Your task to perform on an android device: manage bookmarks in the chrome app Image 0: 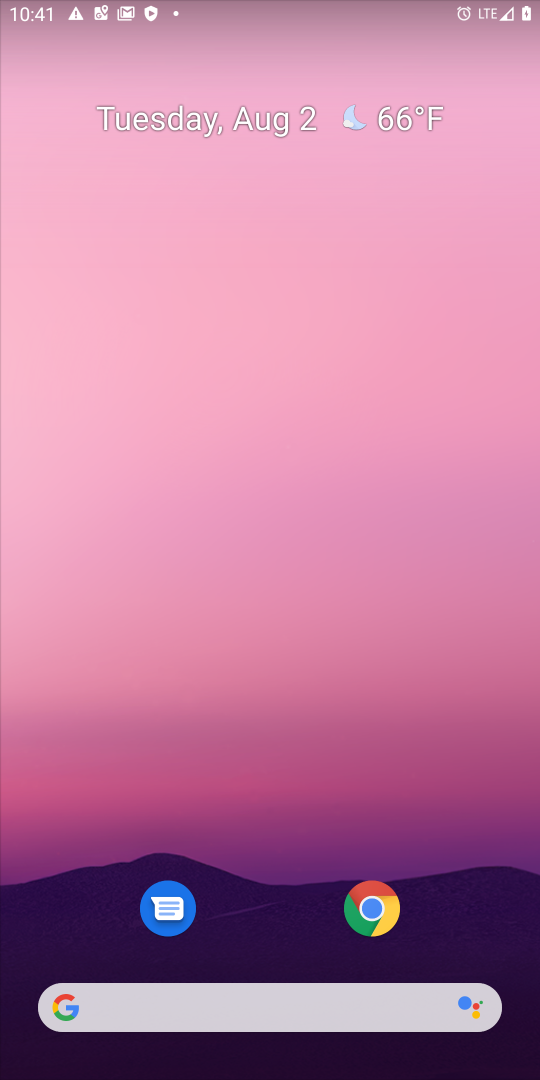
Step 0: press home button
Your task to perform on an android device: manage bookmarks in the chrome app Image 1: 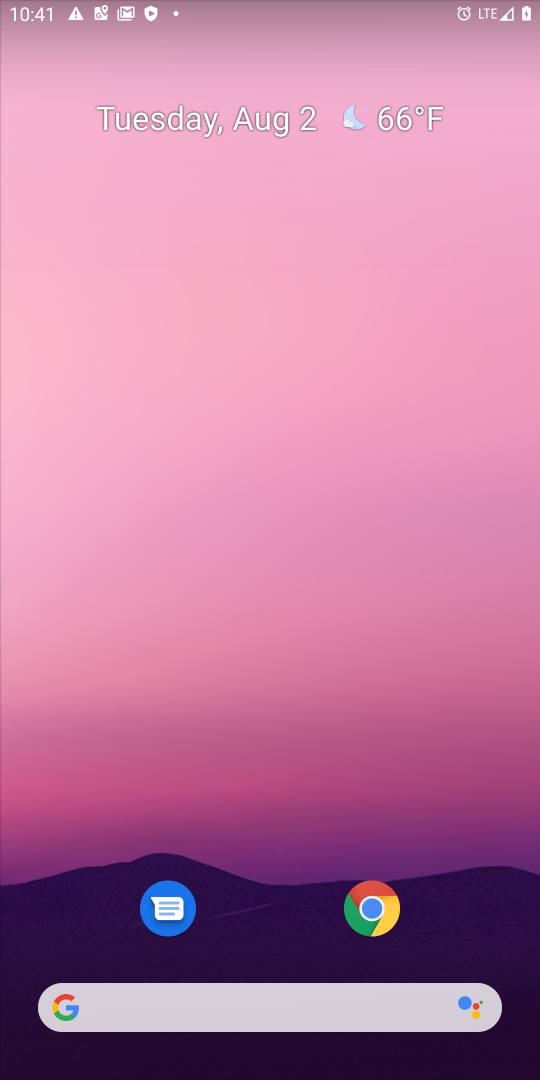
Step 1: drag from (381, 768) to (371, 121)
Your task to perform on an android device: manage bookmarks in the chrome app Image 2: 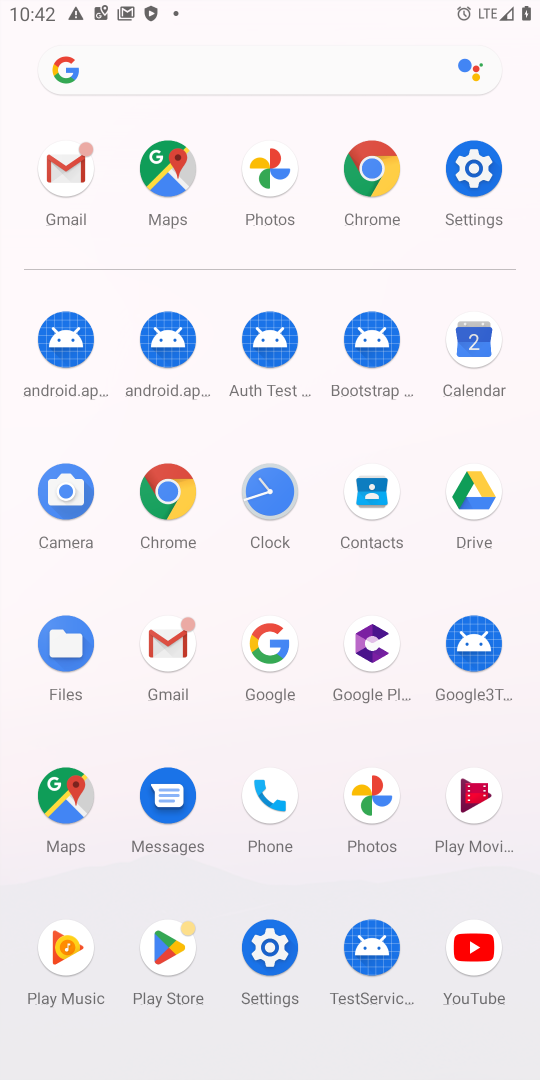
Step 2: click (176, 506)
Your task to perform on an android device: manage bookmarks in the chrome app Image 3: 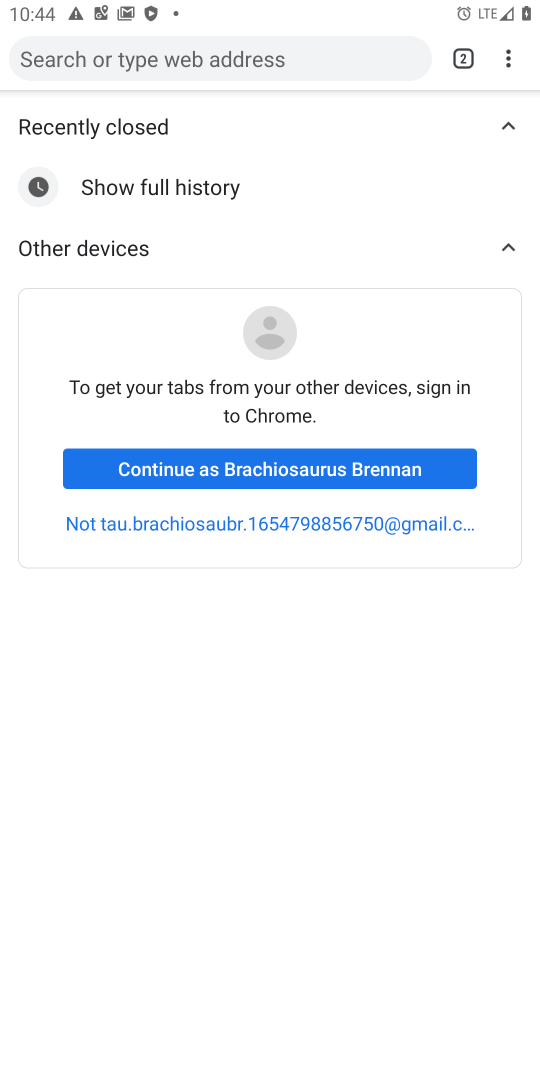
Step 3: click (501, 64)
Your task to perform on an android device: manage bookmarks in the chrome app Image 4: 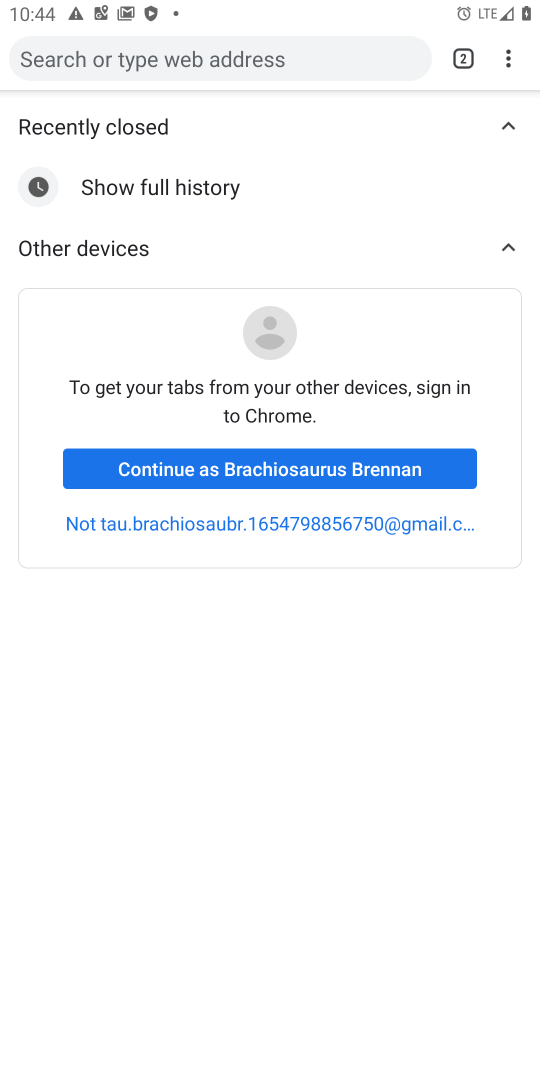
Step 4: click (510, 59)
Your task to perform on an android device: manage bookmarks in the chrome app Image 5: 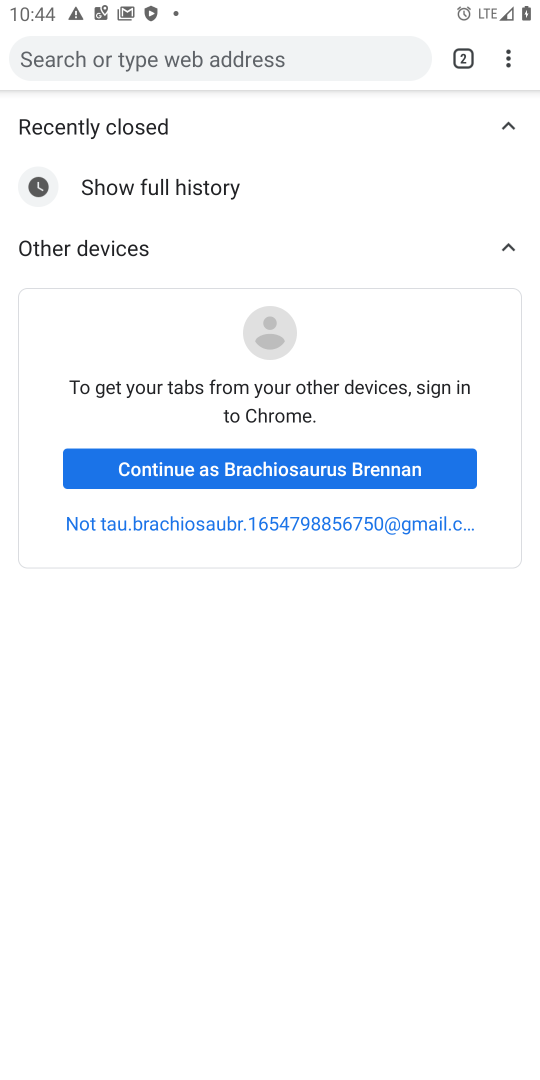
Step 5: click (511, 64)
Your task to perform on an android device: manage bookmarks in the chrome app Image 6: 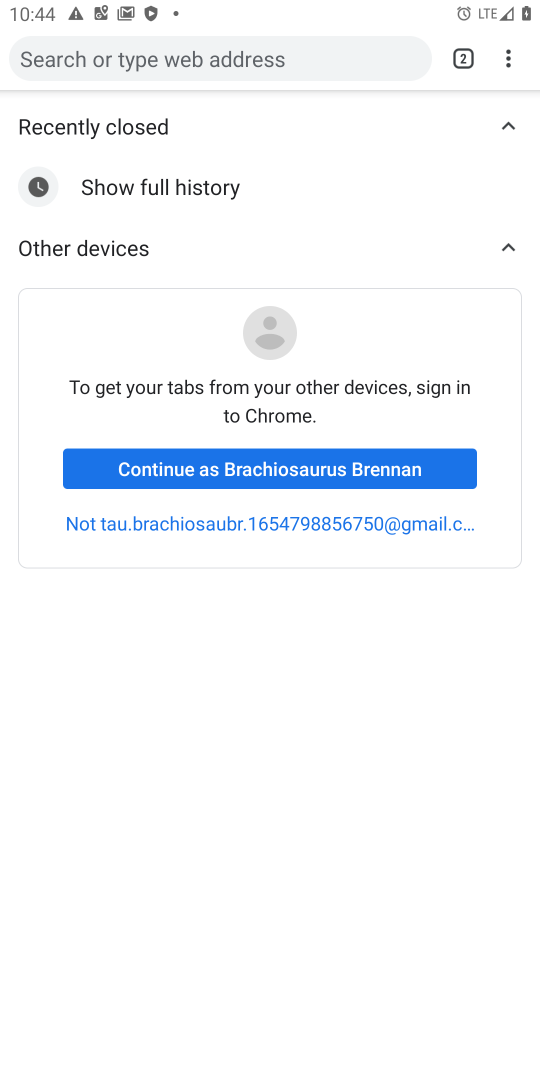
Step 6: click (512, 52)
Your task to perform on an android device: manage bookmarks in the chrome app Image 7: 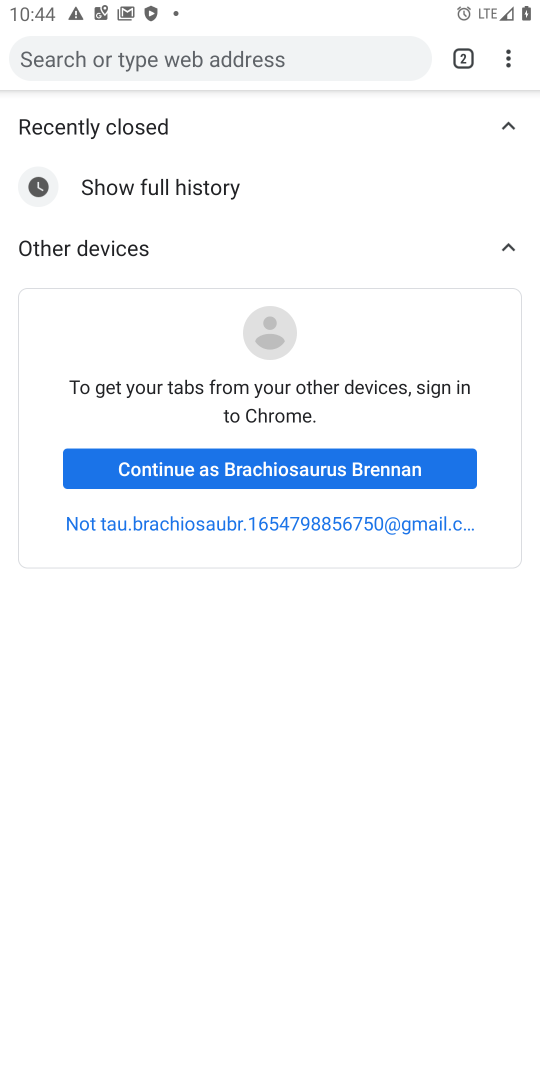
Step 7: click (503, 61)
Your task to perform on an android device: manage bookmarks in the chrome app Image 8: 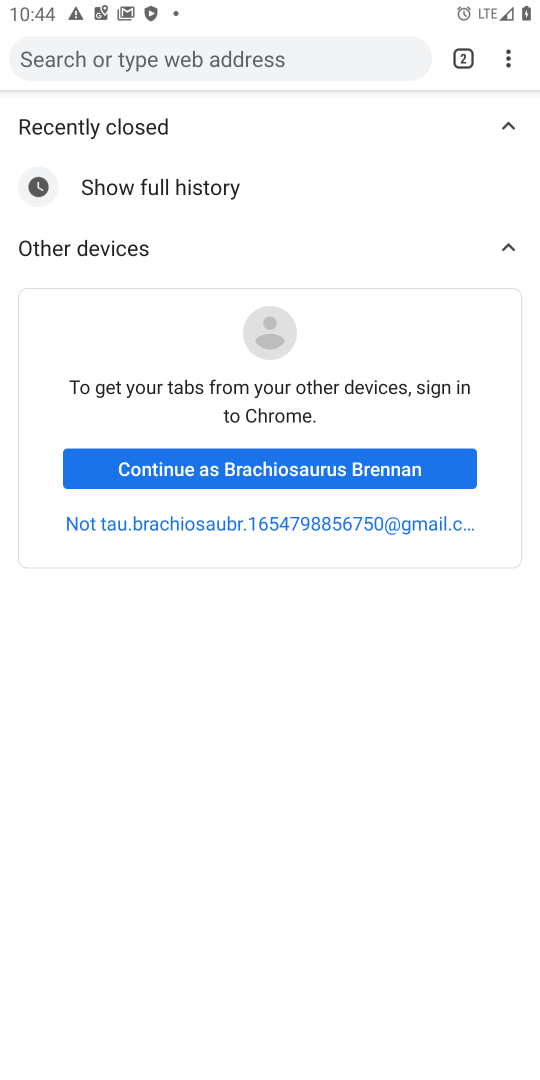
Step 8: click (504, 53)
Your task to perform on an android device: manage bookmarks in the chrome app Image 9: 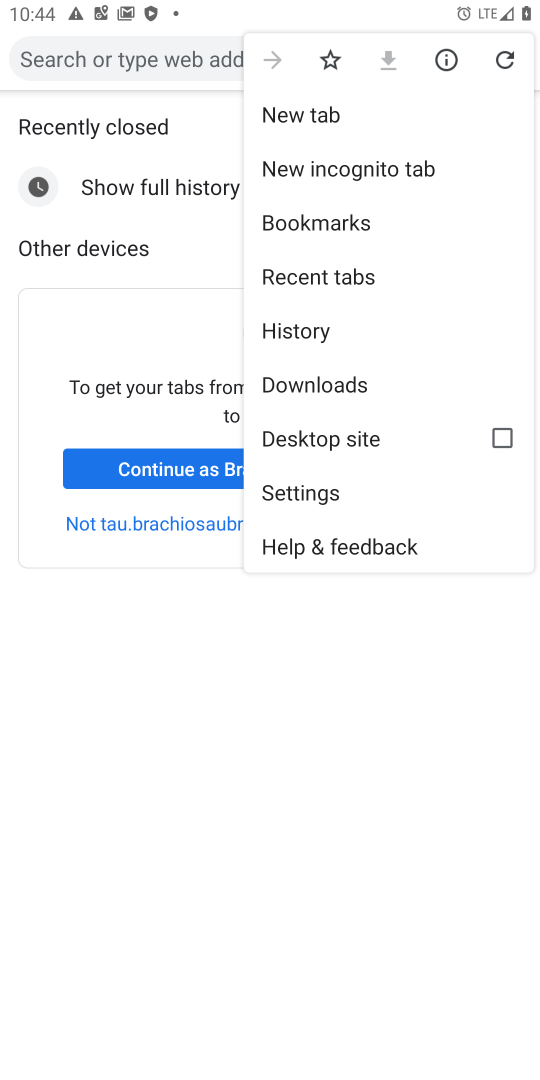
Step 9: click (372, 223)
Your task to perform on an android device: manage bookmarks in the chrome app Image 10: 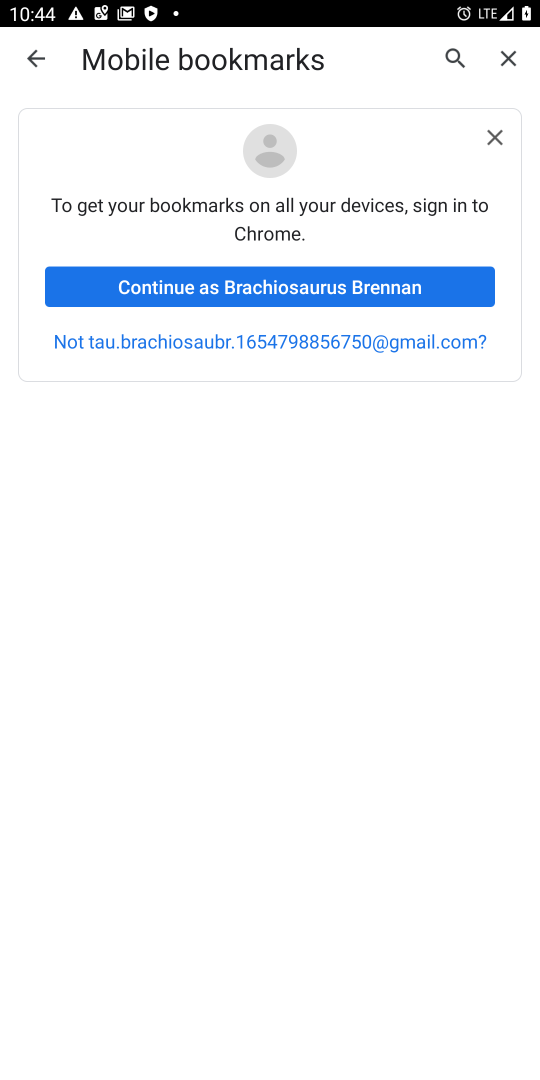
Step 10: click (387, 279)
Your task to perform on an android device: manage bookmarks in the chrome app Image 11: 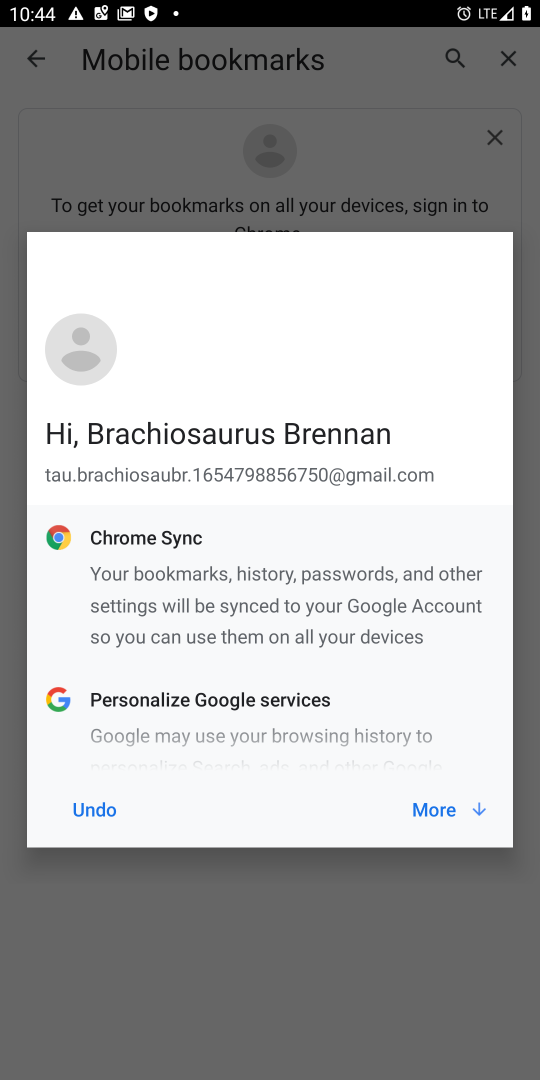
Step 11: click (434, 808)
Your task to perform on an android device: manage bookmarks in the chrome app Image 12: 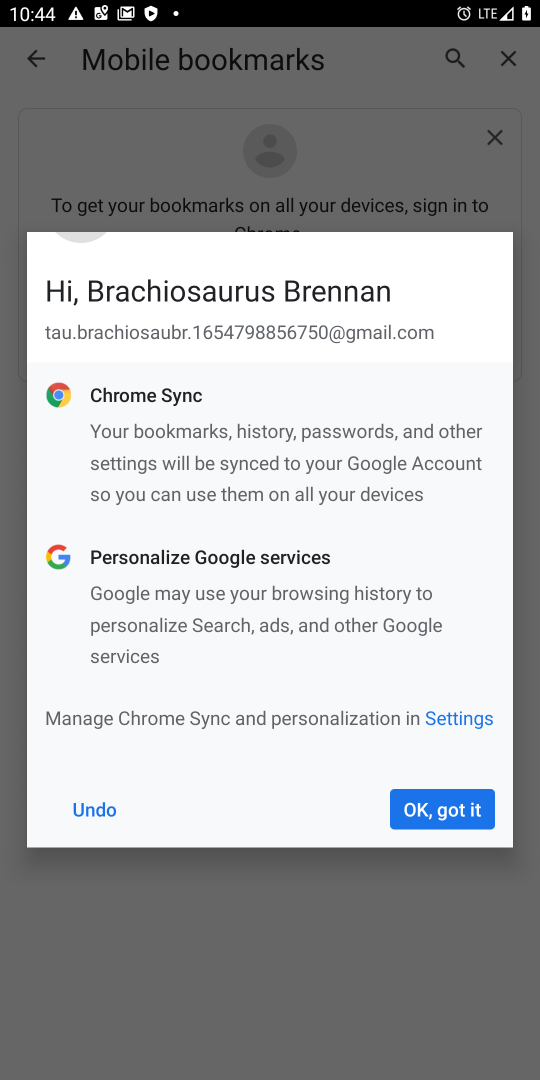
Step 12: click (434, 808)
Your task to perform on an android device: manage bookmarks in the chrome app Image 13: 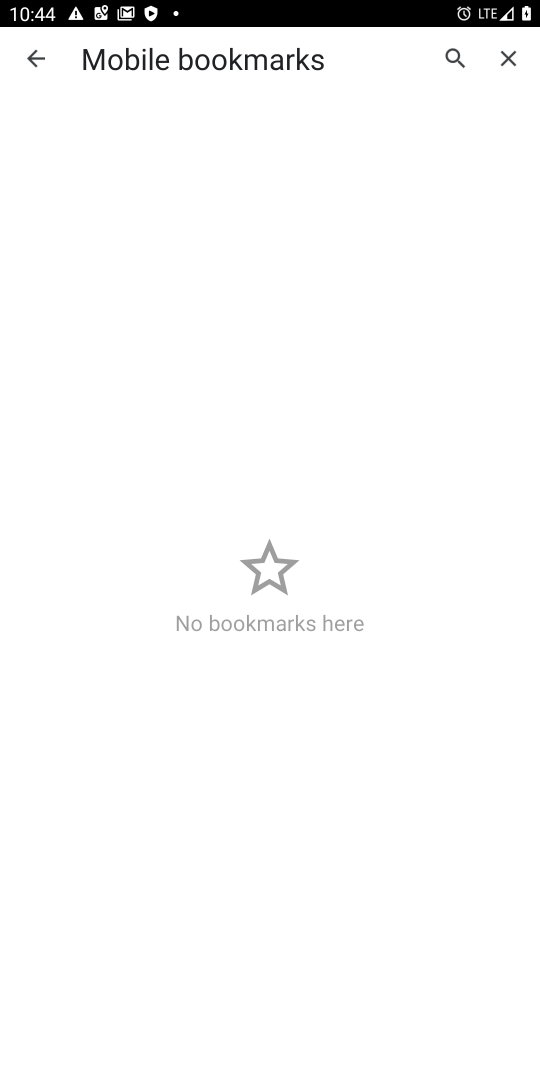
Step 13: click (434, 808)
Your task to perform on an android device: manage bookmarks in the chrome app Image 14: 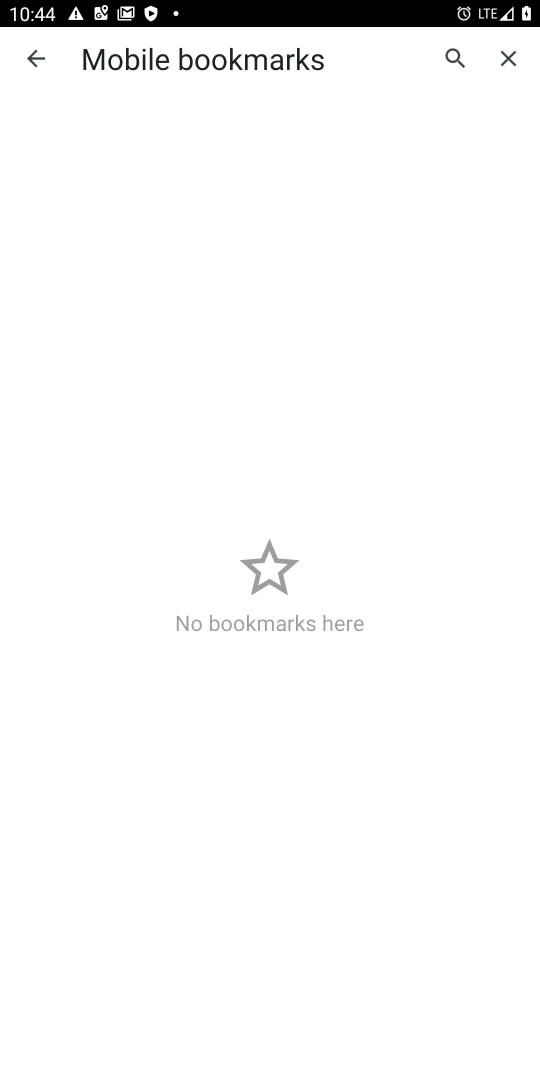
Step 14: click (438, 977)
Your task to perform on an android device: manage bookmarks in the chrome app Image 15: 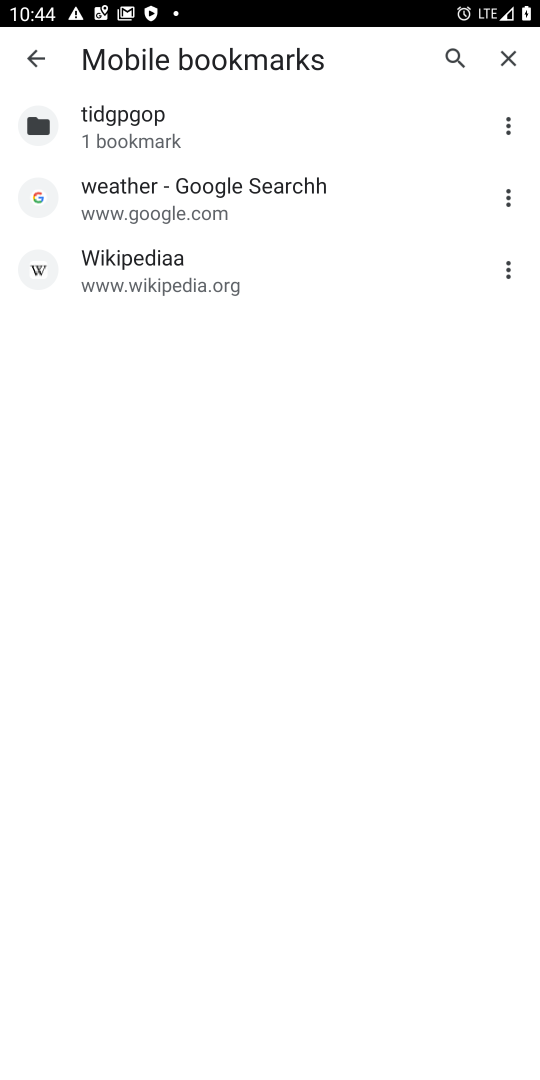
Step 15: click (505, 125)
Your task to perform on an android device: manage bookmarks in the chrome app Image 16: 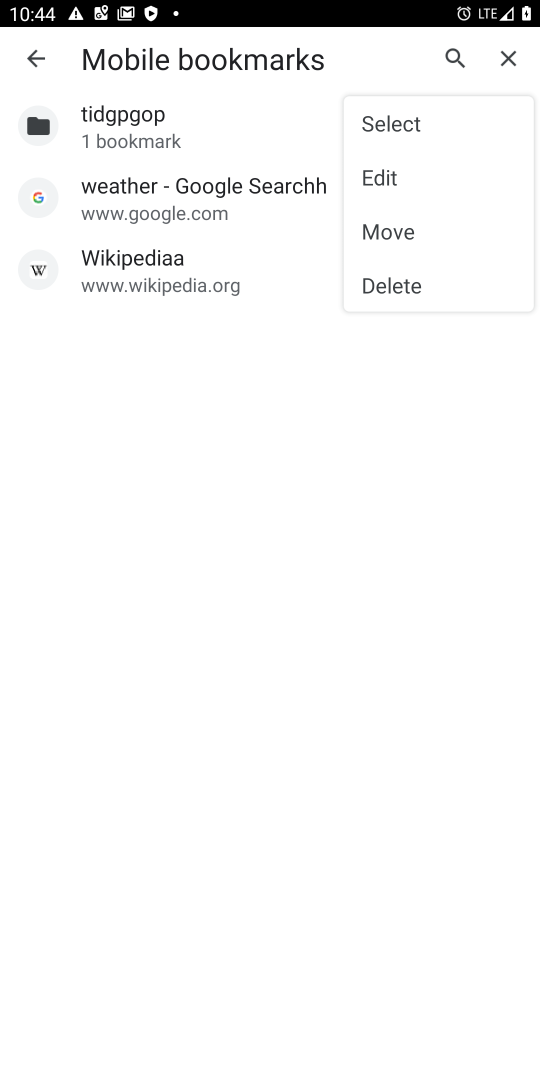
Step 16: click (418, 225)
Your task to perform on an android device: manage bookmarks in the chrome app Image 17: 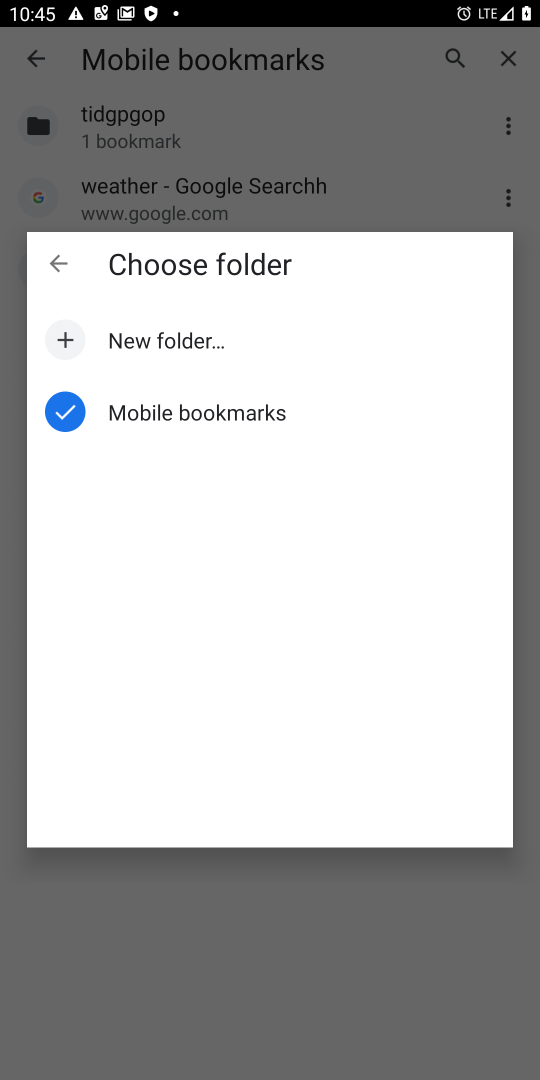
Step 17: click (252, 351)
Your task to perform on an android device: manage bookmarks in the chrome app Image 18: 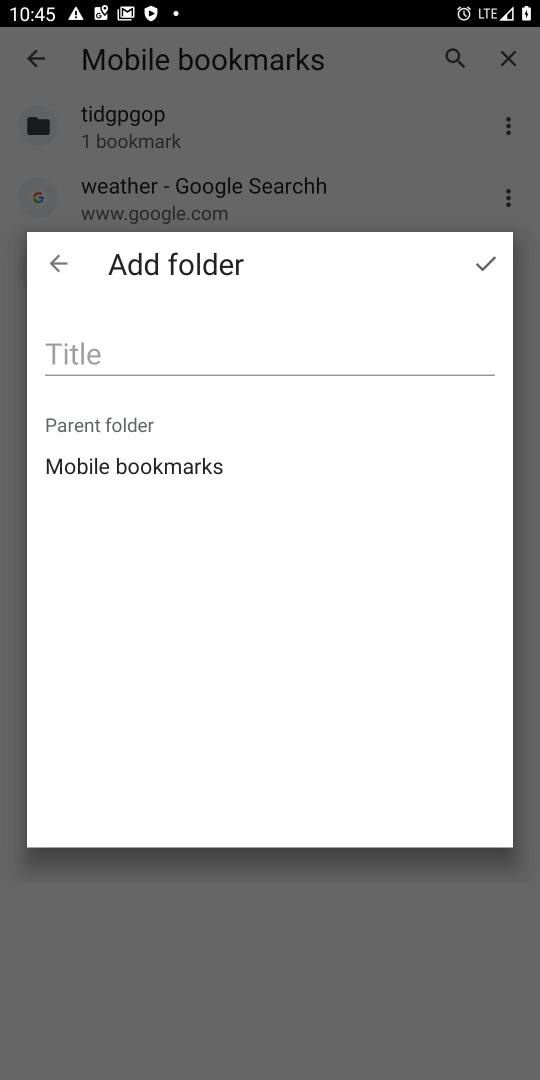
Step 18: click (248, 353)
Your task to perform on an android device: manage bookmarks in the chrome app Image 19: 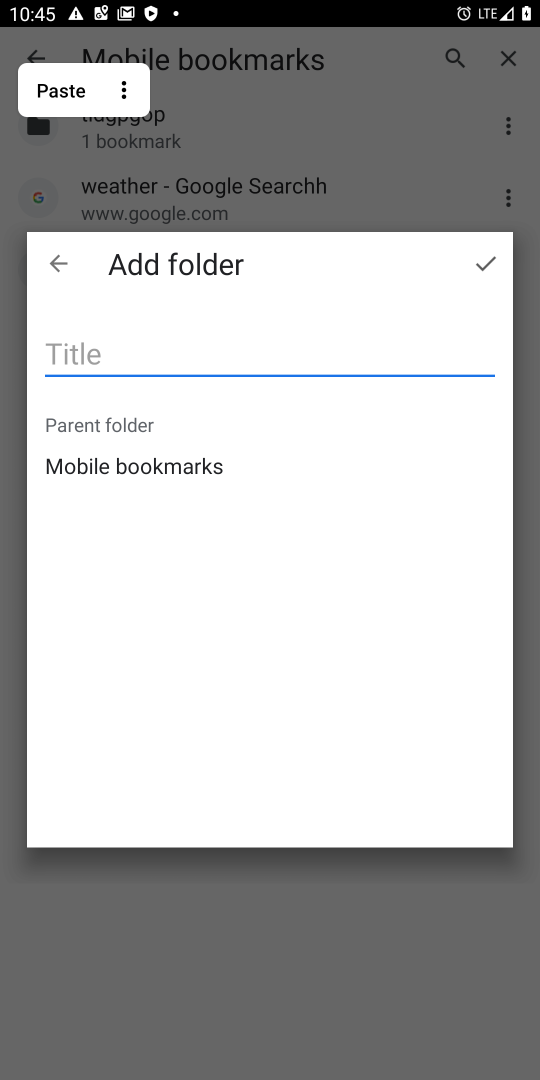
Step 19: type "dgf"
Your task to perform on an android device: manage bookmarks in the chrome app Image 20: 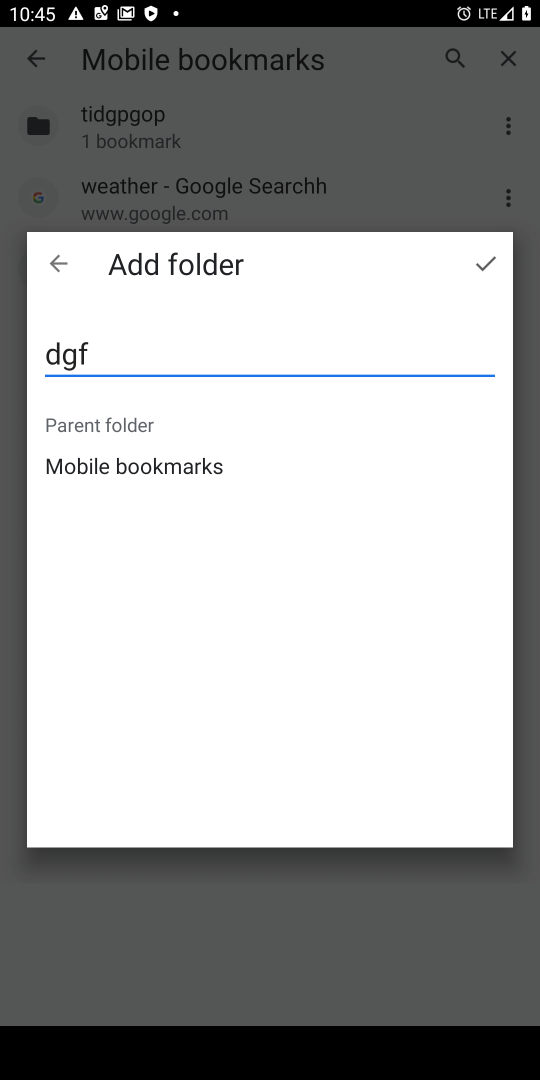
Step 20: click (481, 264)
Your task to perform on an android device: manage bookmarks in the chrome app Image 21: 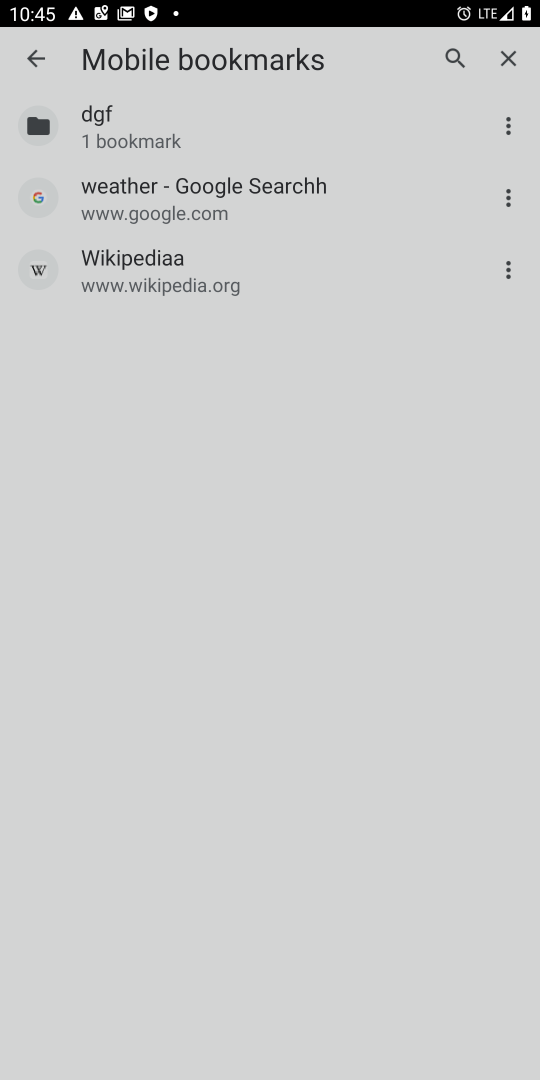
Step 21: task complete